Your task to perform on an android device: Open calendar and show me the second week of next month Image 0: 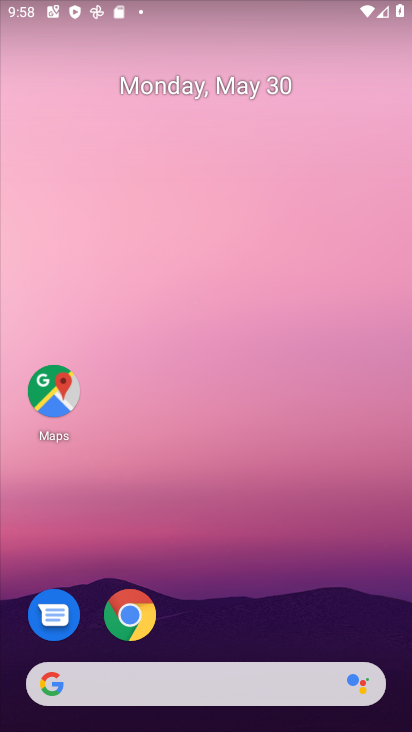
Step 0: drag from (307, 616) to (244, 34)
Your task to perform on an android device: Open calendar and show me the second week of next month Image 1: 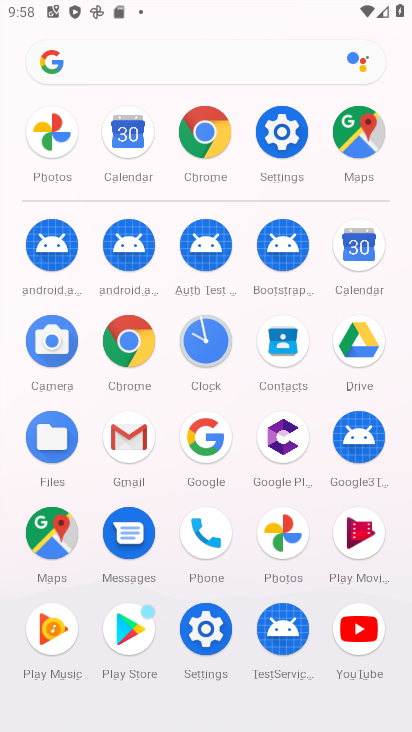
Step 1: click (375, 244)
Your task to perform on an android device: Open calendar and show me the second week of next month Image 2: 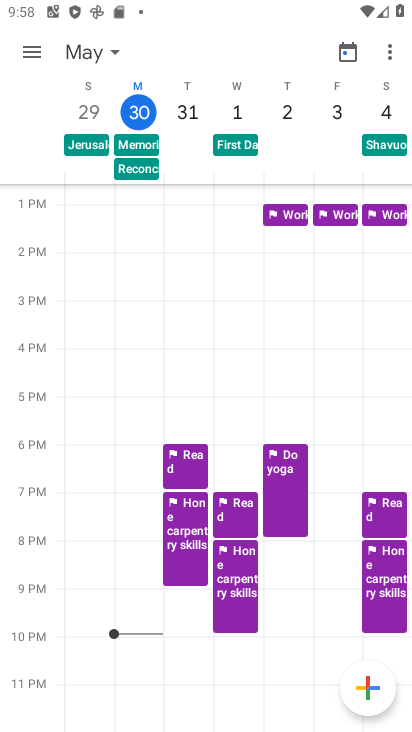
Step 2: click (116, 46)
Your task to perform on an android device: Open calendar and show me the second week of next month Image 3: 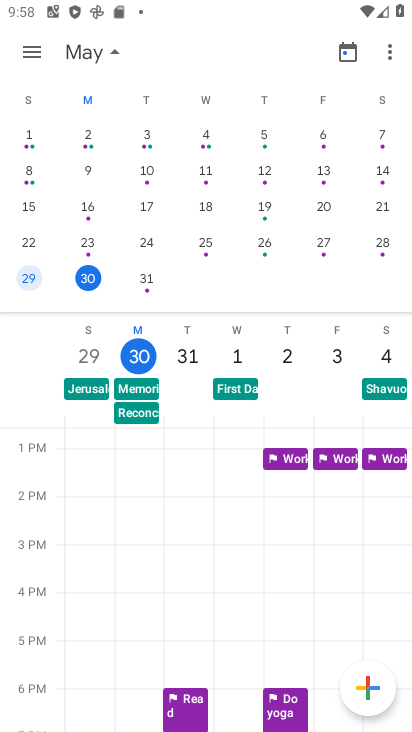
Step 3: drag from (364, 226) to (1, 295)
Your task to perform on an android device: Open calendar and show me the second week of next month Image 4: 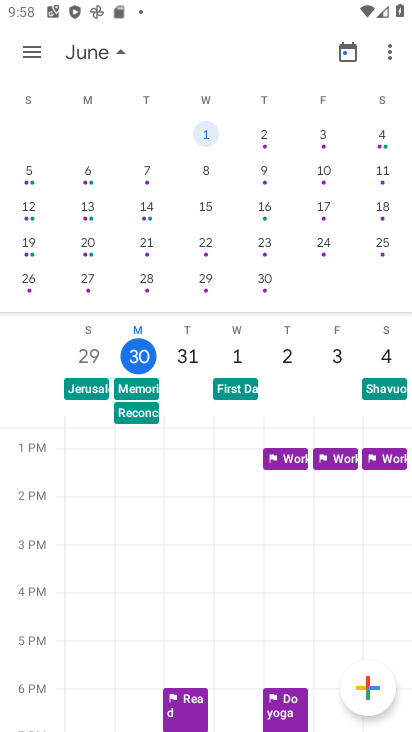
Step 4: click (30, 173)
Your task to perform on an android device: Open calendar and show me the second week of next month Image 5: 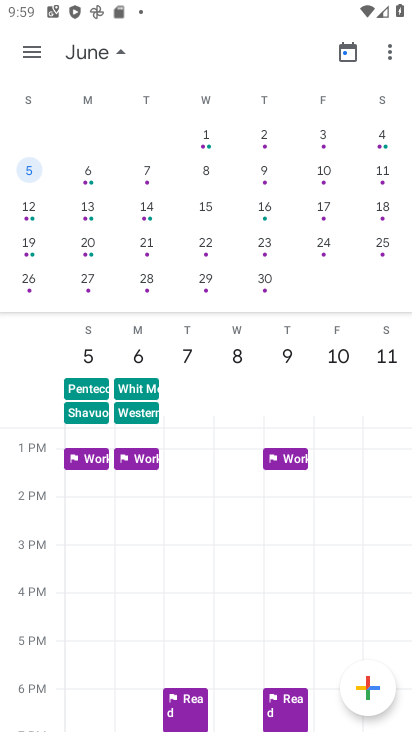
Step 5: task complete